Your task to perform on an android device: Go to accessibility settings Image 0: 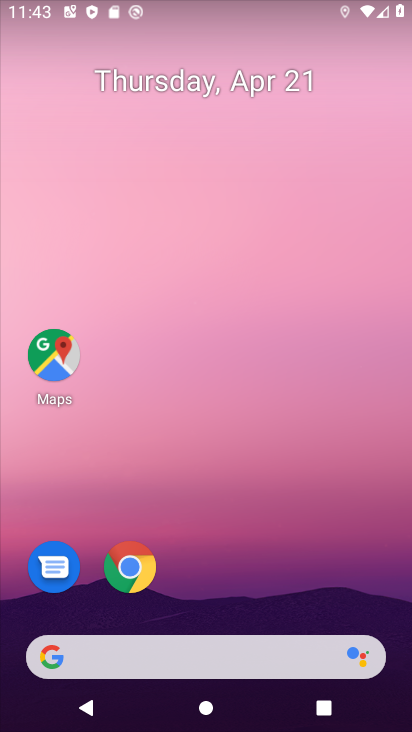
Step 0: drag from (173, 607) to (216, 189)
Your task to perform on an android device: Go to accessibility settings Image 1: 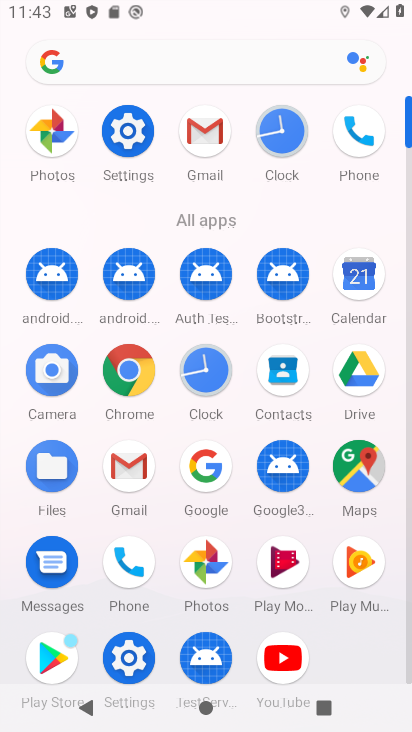
Step 1: click (130, 140)
Your task to perform on an android device: Go to accessibility settings Image 2: 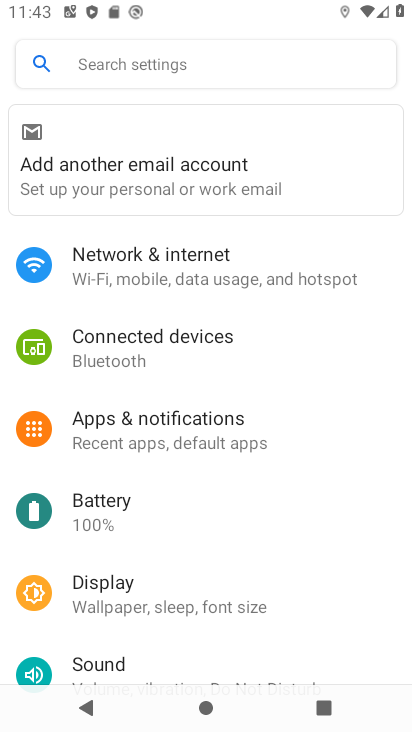
Step 2: drag from (169, 628) to (224, 244)
Your task to perform on an android device: Go to accessibility settings Image 3: 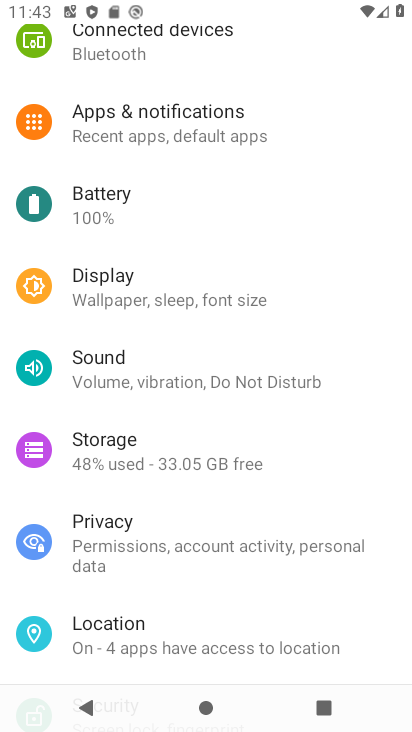
Step 3: drag from (191, 632) to (249, 289)
Your task to perform on an android device: Go to accessibility settings Image 4: 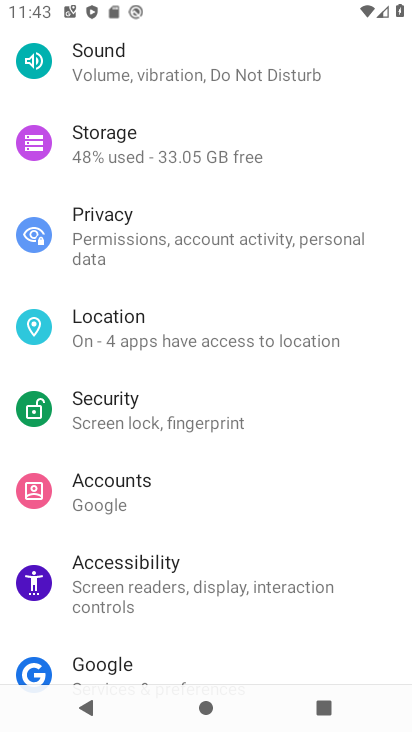
Step 4: click (150, 641)
Your task to perform on an android device: Go to accessibility settings Image 5: 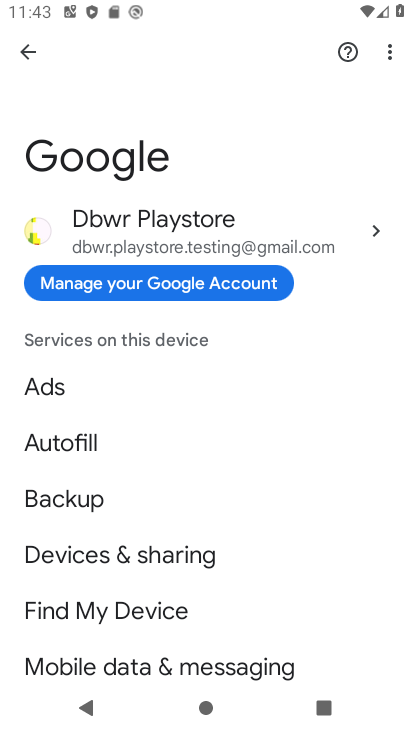
Step 5: click (37, 48)
Your task to perform on an android device: Go to accessibility settings Image 6: 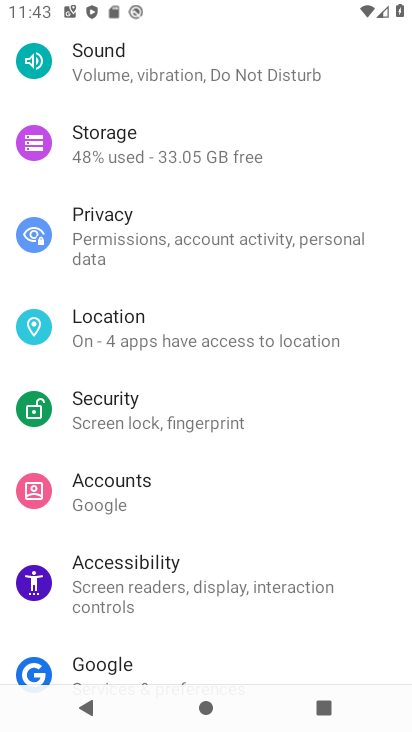
Step 6: click (159, 573)
Your task to perform on an android device: Go to accessibility settings Image 7: 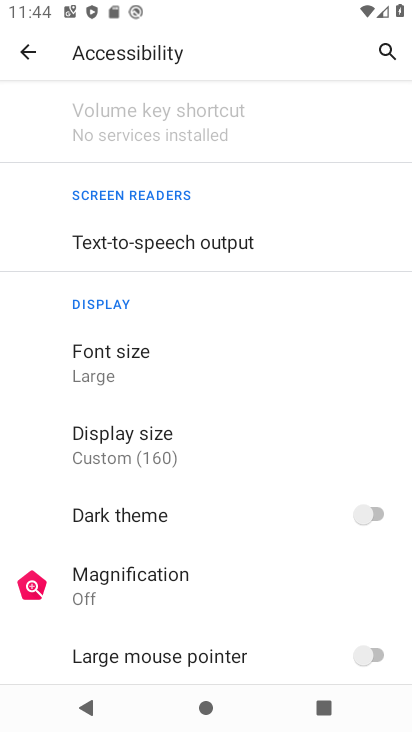
Step 7: task complete